Your task to perform on an android device: all mails in gmail Image 0: 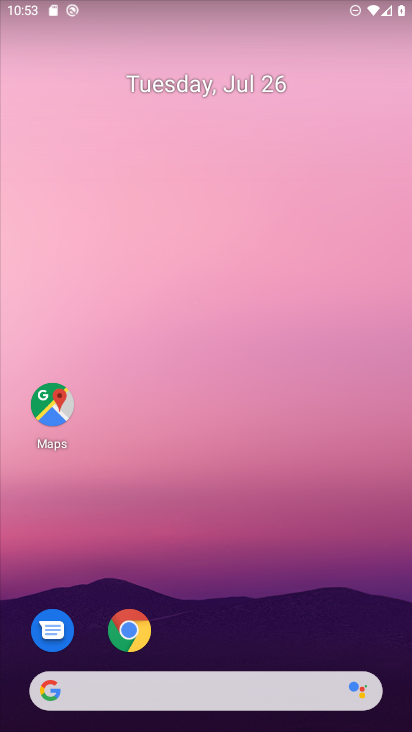
Step 0: drag from (324, 632) to (334, 188)
Your task to perform on an android device: all mails in gmail Image 1: 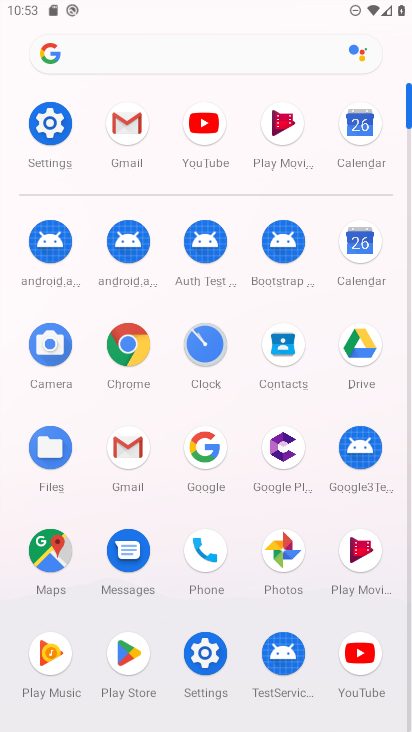
Step 1: click (131, 449)
Your task to perform on an android device: all mails in gmail Image 2: 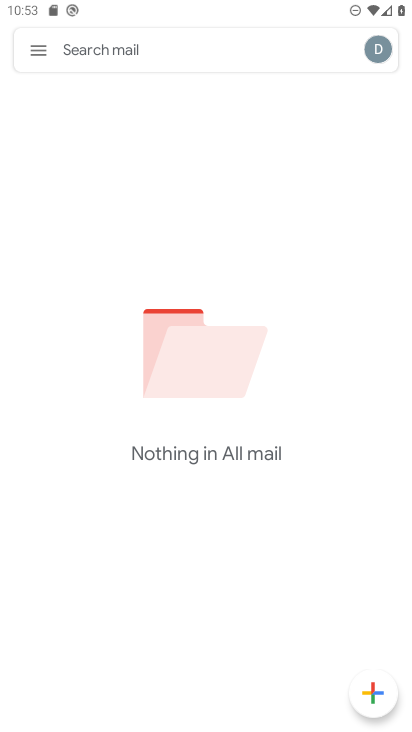
Step 2: task complete